Your task to perform on an android device: move a message to another label in the gmail app Image 0: 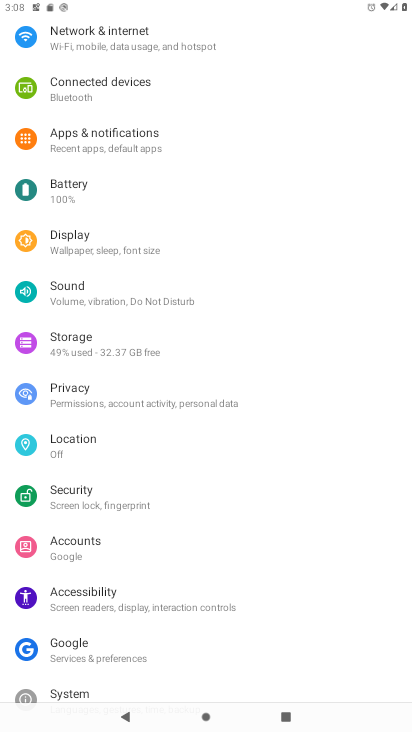
Step 0: press home button
Your task to perform on an android device: move a message to another label in the gmail app Image 1: 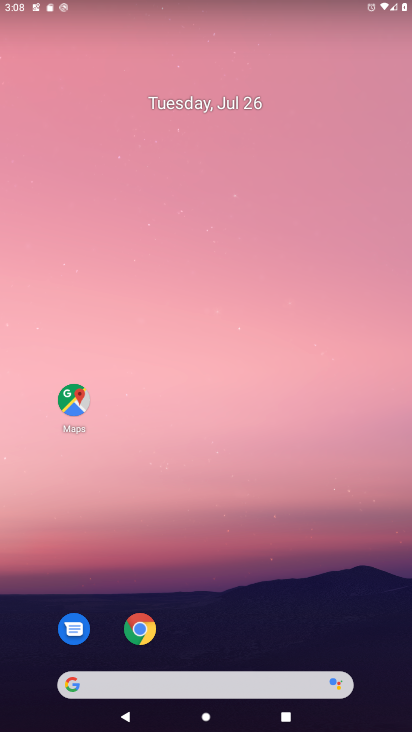
Step 1: drag from (206, 577) to (240, 199)
Your task to perform on an android device: move a message to another label in the gmail app Image 2: 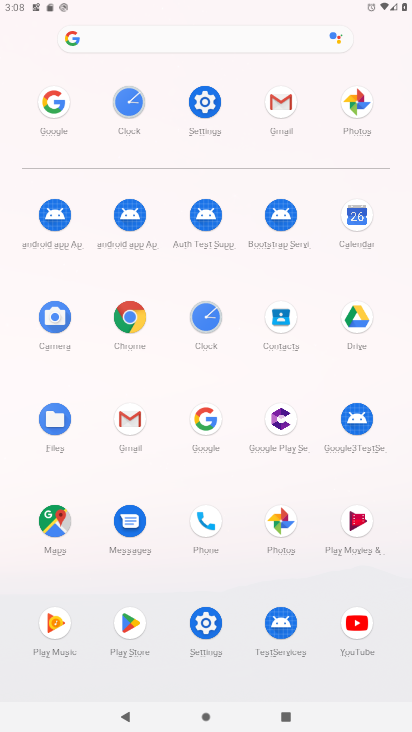
Step 2: click (279, 108)
Your task to perform on an android device: move a message to another label in the gmail app Image 3: 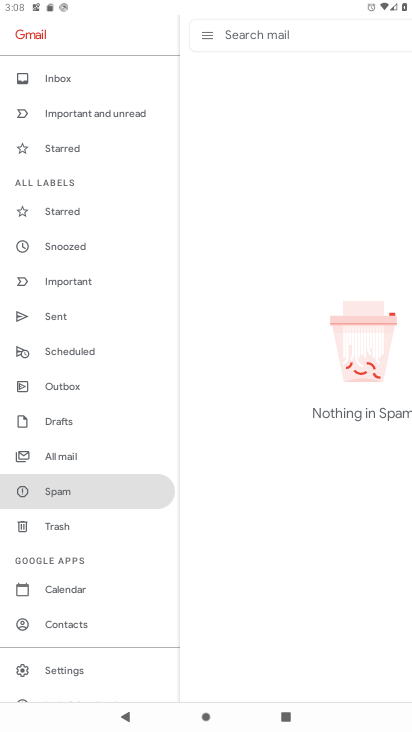
Step 3: click (62, 466)
Your task to perform on an android device: move a message to another label in the gmail app Image 4: 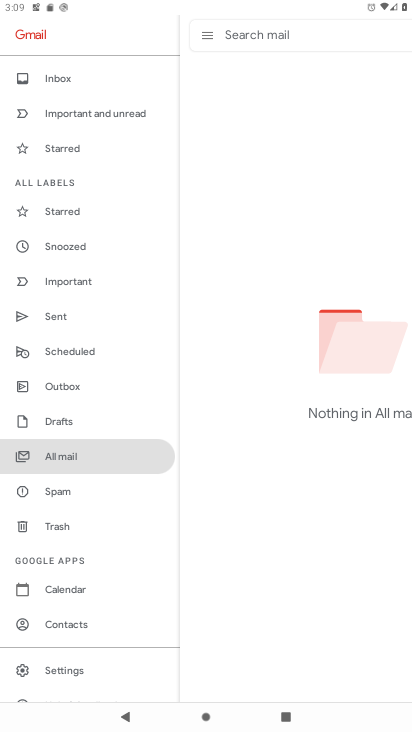
Step 4: task complete